Your task to perform on an android device: Open Google Maps and go to "Timeline" Image 0: 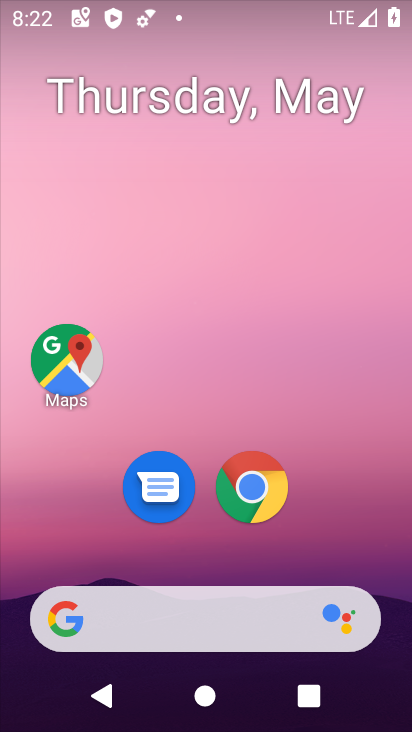
Step 0: drag from (193, 542) to (372, 0)
Your task to perform on an android device: Open Google Maps and go to "Timeline" Image 1: 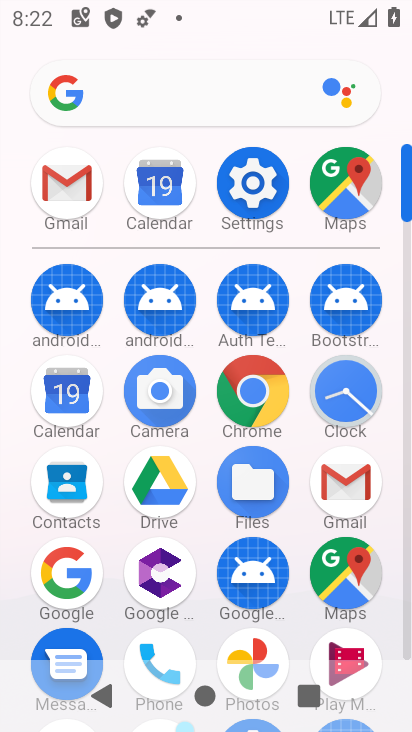
Step 1: click (344, 200)
Your task to perform on an android device: Open Google Maps and go to "Timeline" Image 2: 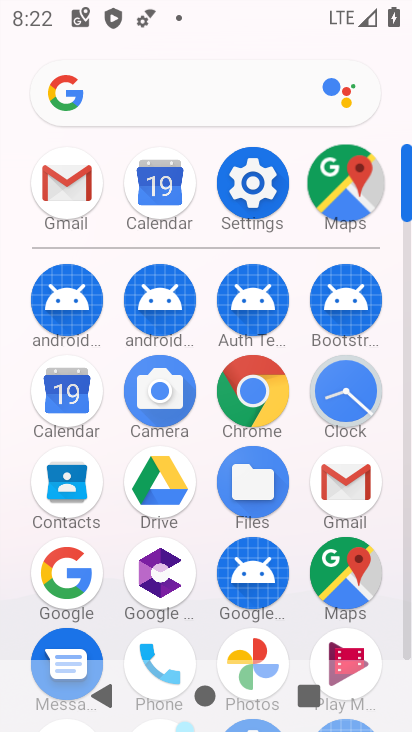
Step 2: click (343, 200)
Your task to perform on an android device: Open Google Maps and go to "Timeline" Image 3: 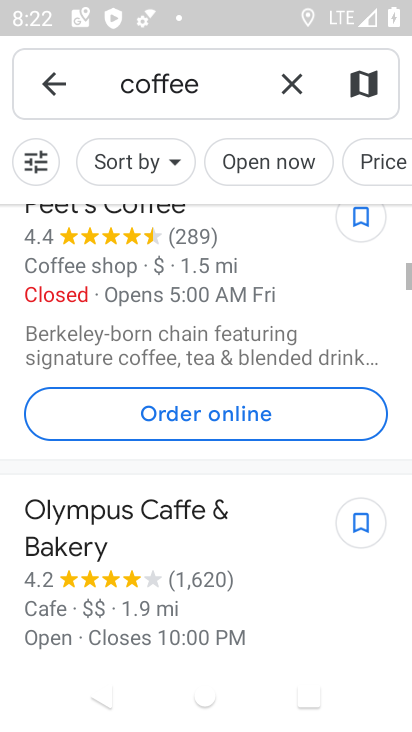
Step 3: click (44, 82)
Your task to perform on an android device: Open Google Maps and go to "Timeline" Image 4: 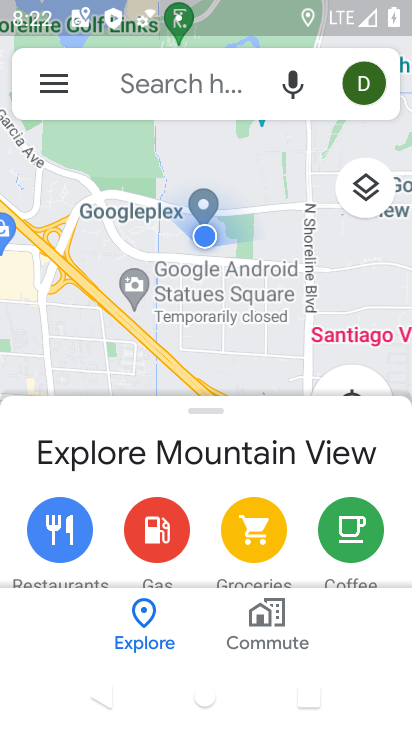
Step 4: click (51, 90)
Your task to perform on an android device: Open Google Maps and go to "Timeline" Image 5: 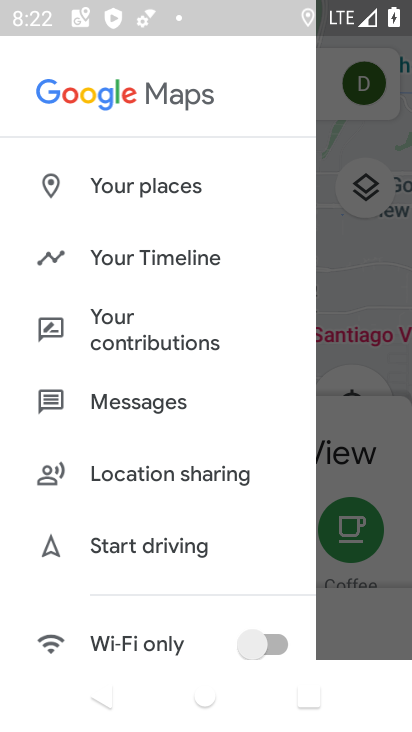
Step 5: click (143, 261)
Your task to perform on an android device: Open Google Maps and go to "Timeline" Image 6: 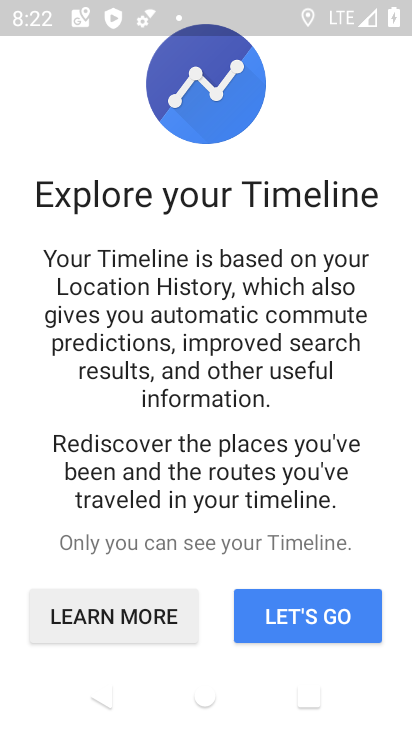
Step 6: click (261, 609)
Your task to perform on an android device: Open Google Maps and go to "Timeline" Image 7: 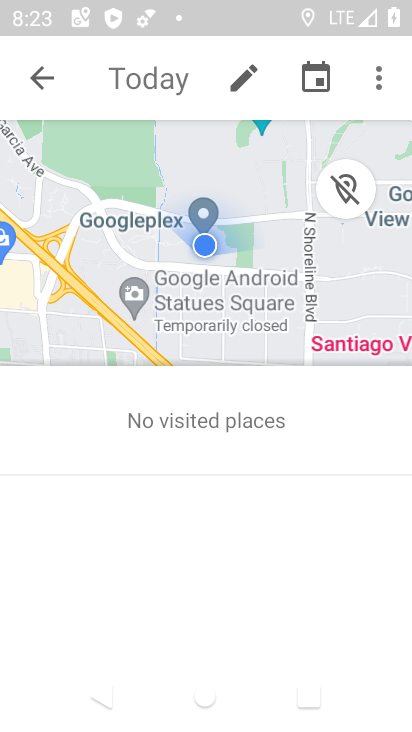
Step 7: task complete